Your task to perform on an android device: Open my contact list Image 0: 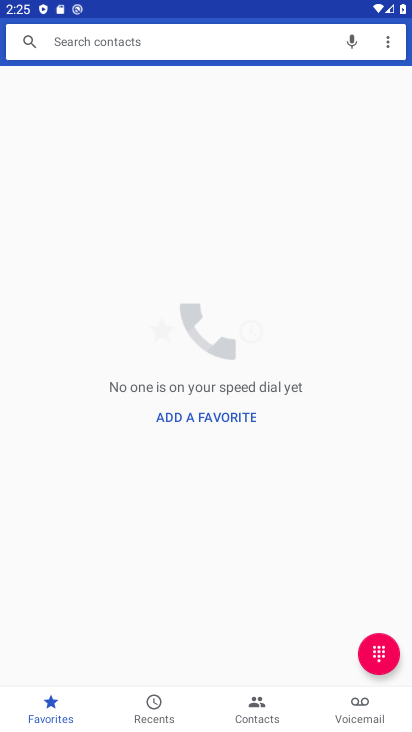
Step 0: press home button
Your task to perform on an android device: Open my contact list Image 1: 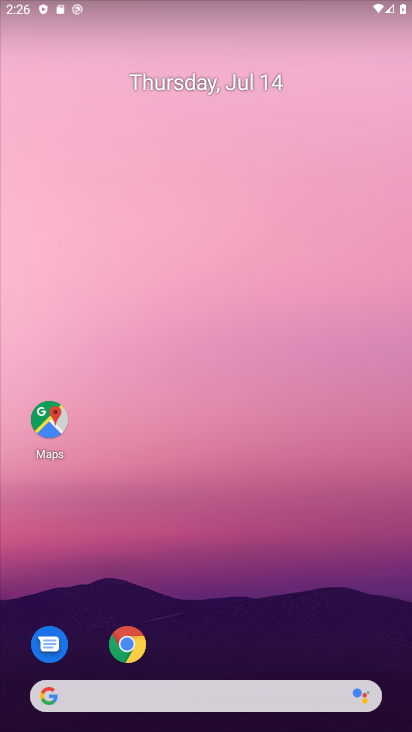
Step 1: drag from (276, 643) to (199, 217)
Your task to perform on an android device: Open my contact list Image 2: 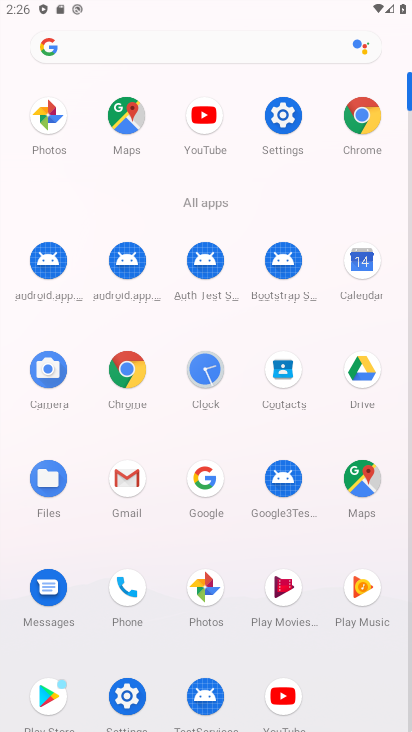
Step 2: click (290, 372)
Your task to perform on an android device: Open my contact list Image 3: 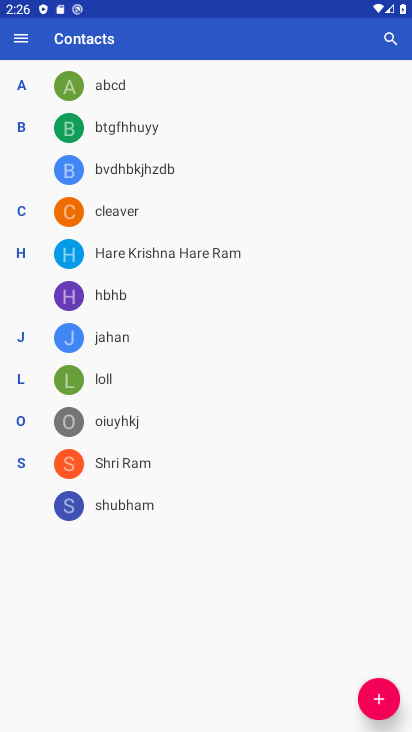
Step 3: task complete